Your task to perform on an android device: check google app version Image 0: 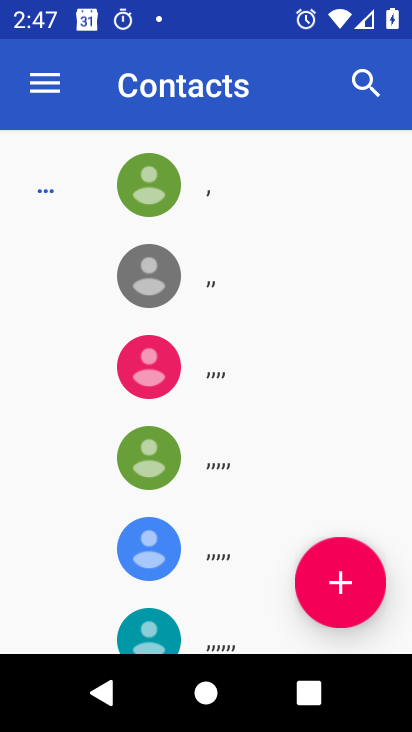
Step 0: press home button
Your task to perform on an android device: check google app version Image 1: 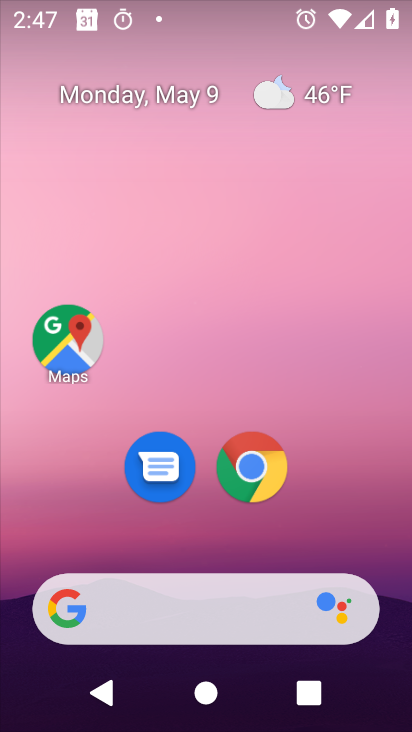
Step 1: drag from (214, 511) to (241, 0)
Your task to perform on an android device: check google app version Image 2: 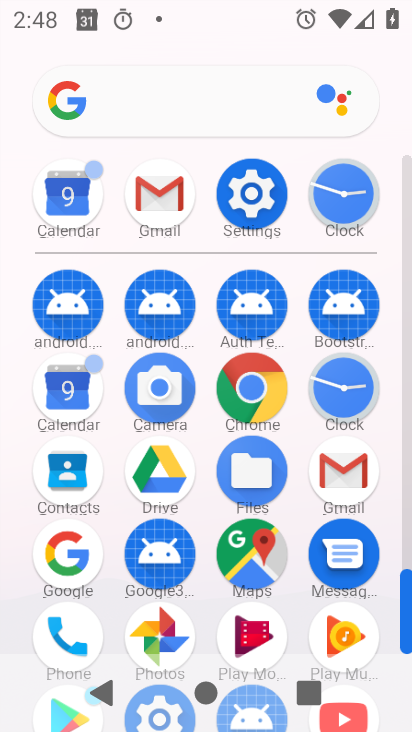
Step 2: click (64, 554)
Your task to perform on an android device: check google app version Image 3: 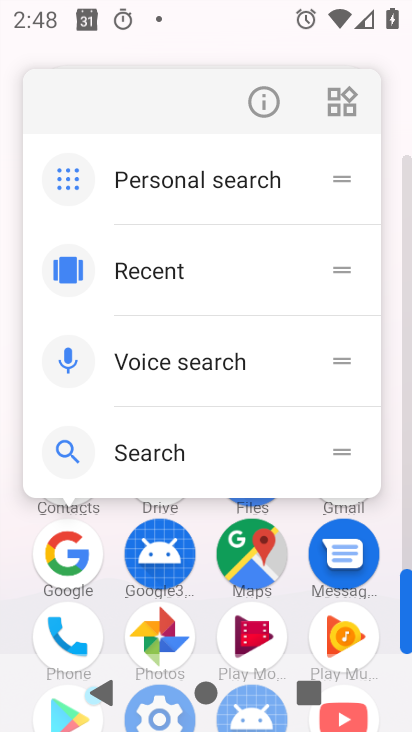
Step 3: click (254, 103)
Your task to perform on an android device: check google app version Image 4: 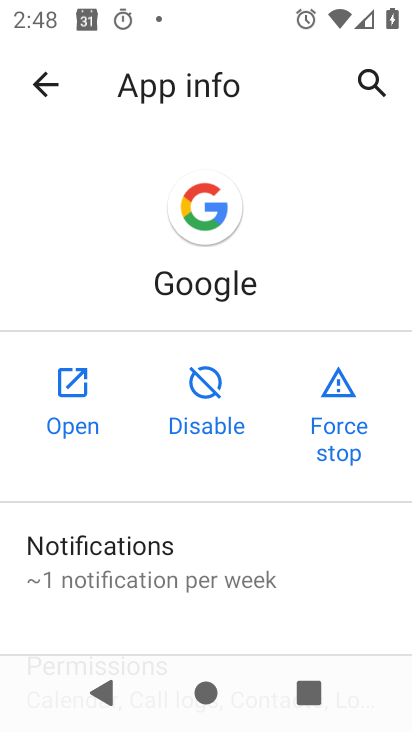
Step 4: drag from (223, 481) to (195, 45)
Your task to perform on an android device: check google app version Image 5: 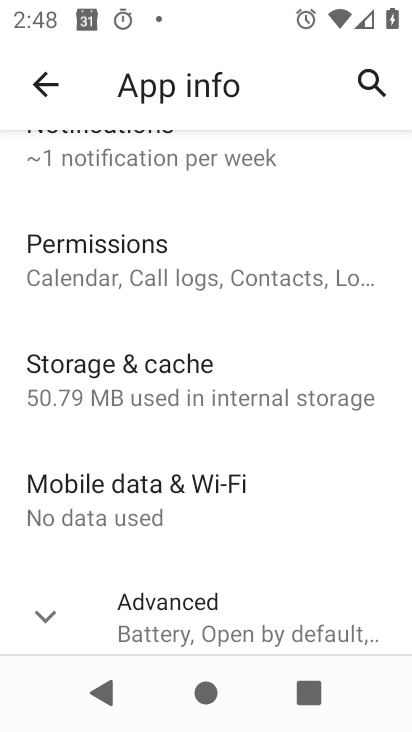
Step 5: drag from (196, 572) to (217, 144)
Your task to perform on an android device: check google app version Image 6: 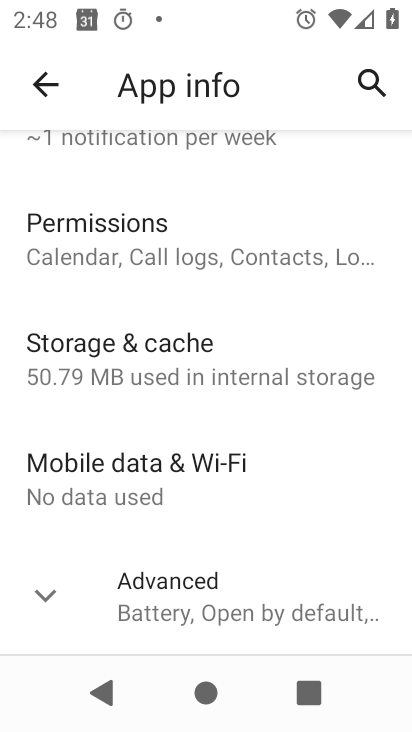
Step 6: click (201, 591)
Your task to perform on an android device: check google app version Image 7: 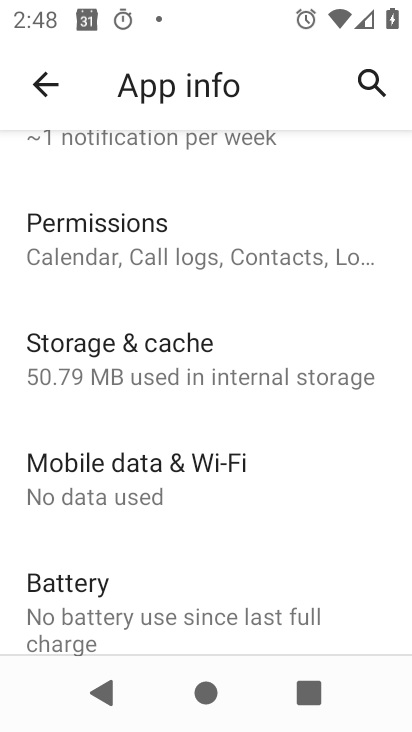
Step 7: task complete